Your task to perform on an android device: Go to notification settings Image 0: 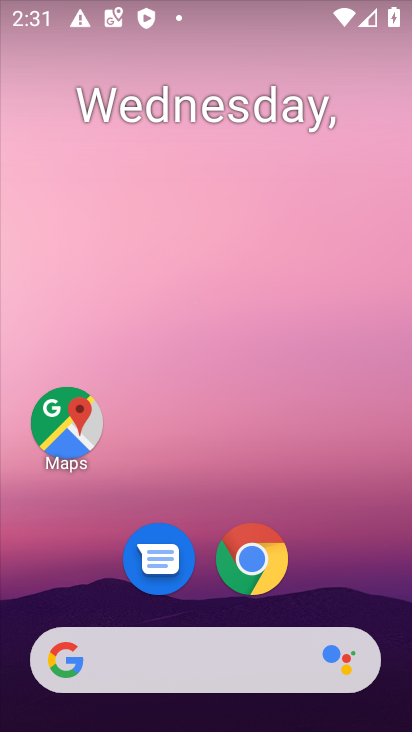
Step 0: drag from (201, 619) to (201, 4)
Your task to perform on an android device: Go to notification settings Image 1: 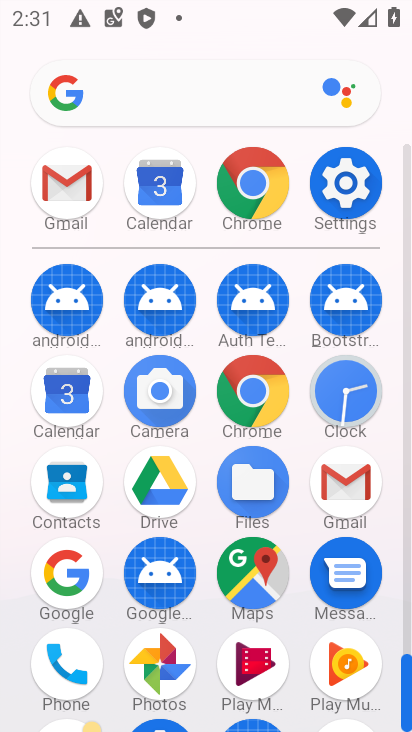
Step 1: click (351, 173)
Your task to perform on an android device: Go to notification settings Image 2: 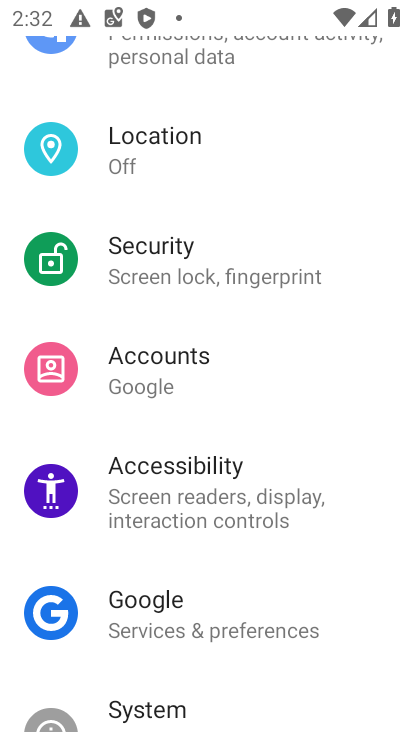
Step 2: drag from (194, 150) to (184, 551)
Your task to perform on an android device: Go to notification settings Image 3: 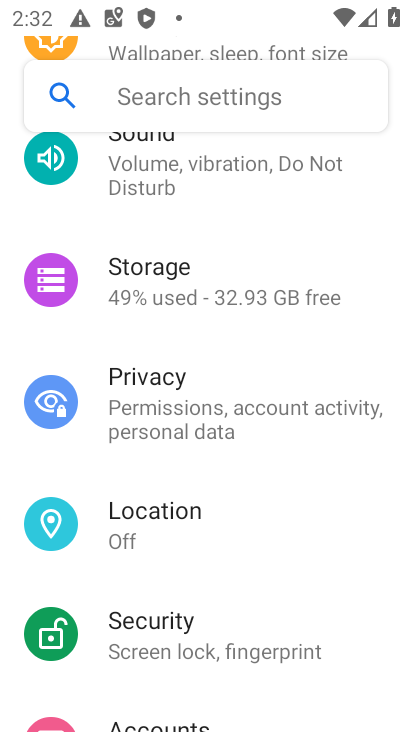
Step 3: drag from (194, 164) to (169, 551)
Your task to perform on an android device: Go to notification settings Image 4: 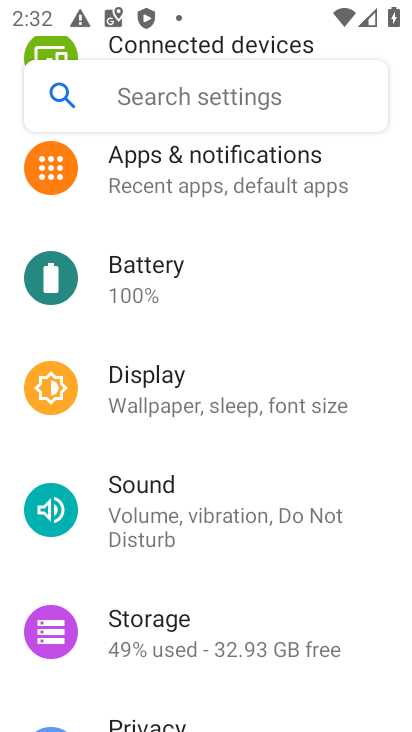
Step 4: drag from (170, 137) to (180, 532)
Your task to perform on an android device: Go to notification settings Image 5: 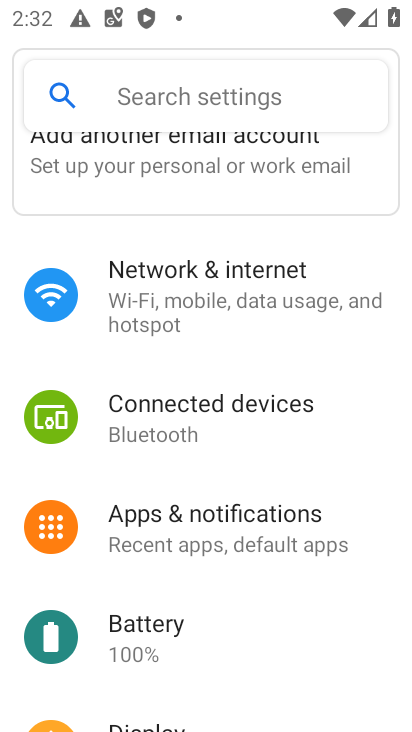
Step 5: click (200, 531)
Your task to perform on an android device: Go to notification settings Image 6: 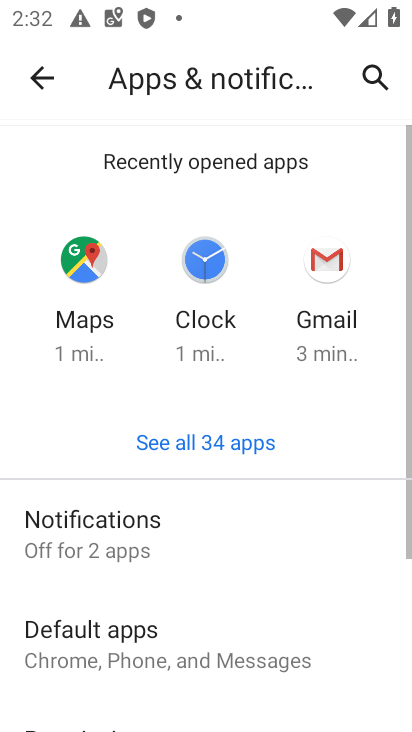
Step 6: click (80, 536)
Your task to perform on an android device: Go to notification settings Image 7: 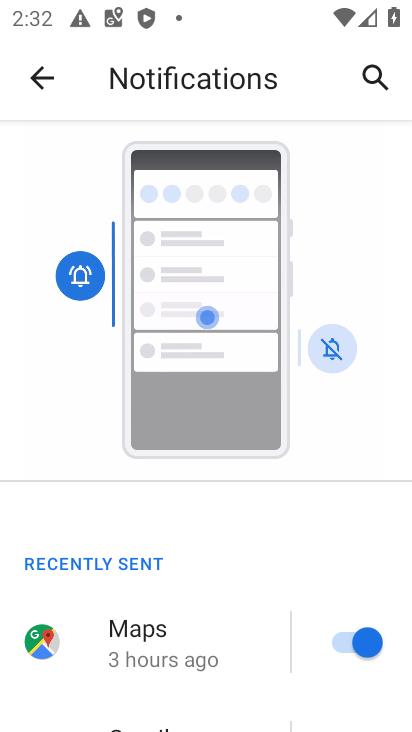
Step 7: task complete